Your task to perform on an android device: What is the news today? Image 0: 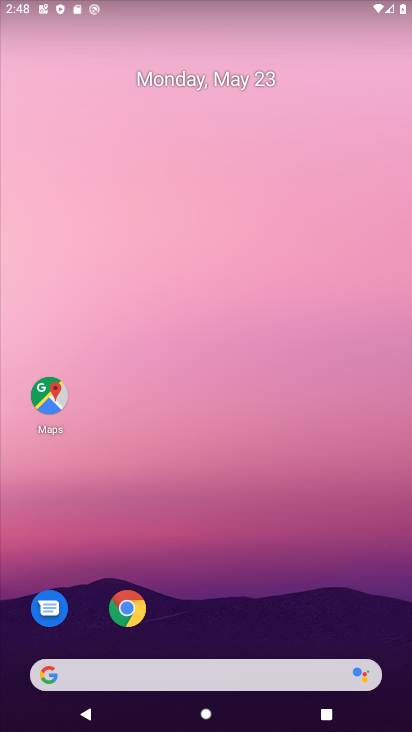
Step 0: drag from (279, 610) to (252, 92)
Your task to perform on an android device: What is the news today? Image 1: 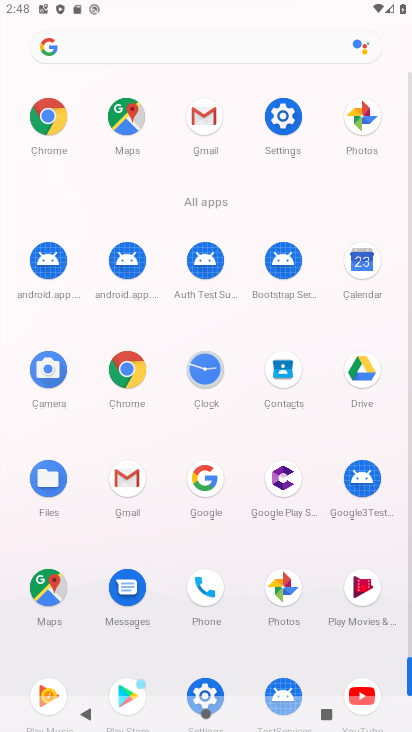
Step 1: click (202, 477)
Your task to perform on an android device: What is the news today? Image 2: 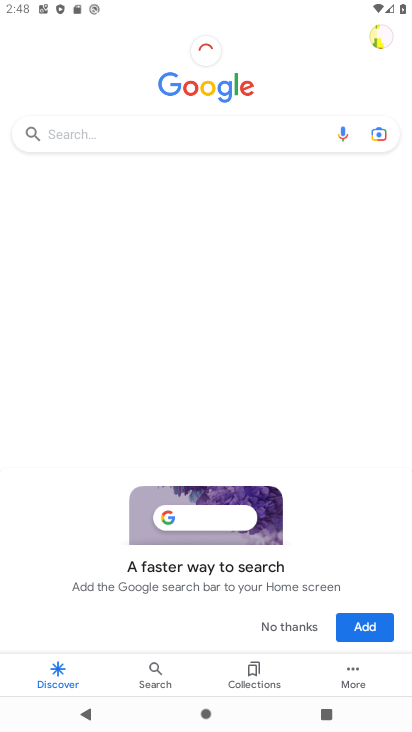
Step 2: click (218, 134)
Your task to perform on an android device: What is the news today? Image 3: 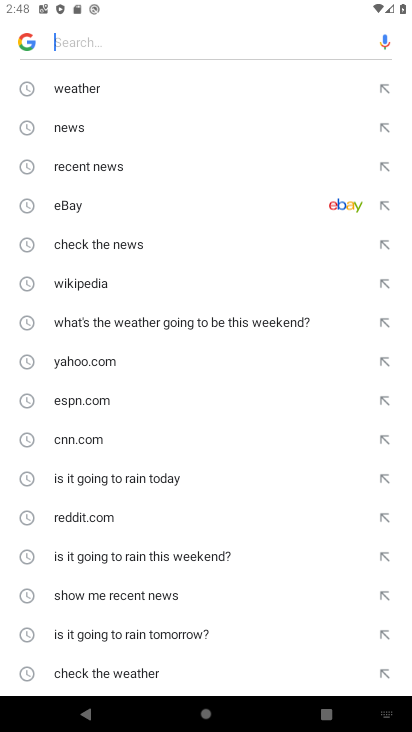
Step 3: type "news today"
Your task to perform on an android device: What is the news today? Image 4: 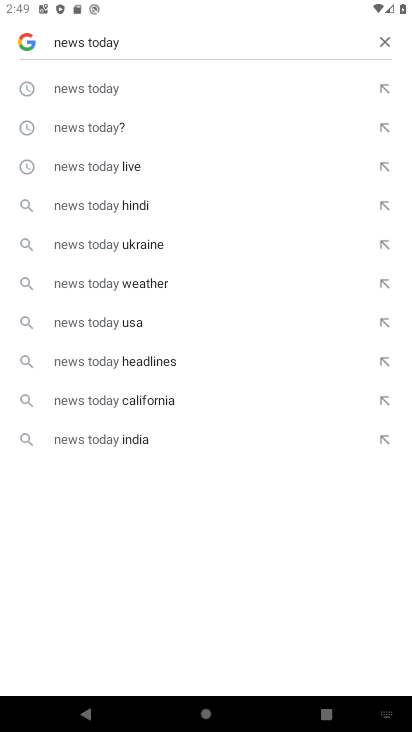
Step 4: click (98, 97)
Your task to perform on an android device: What is the news today? Image 5: 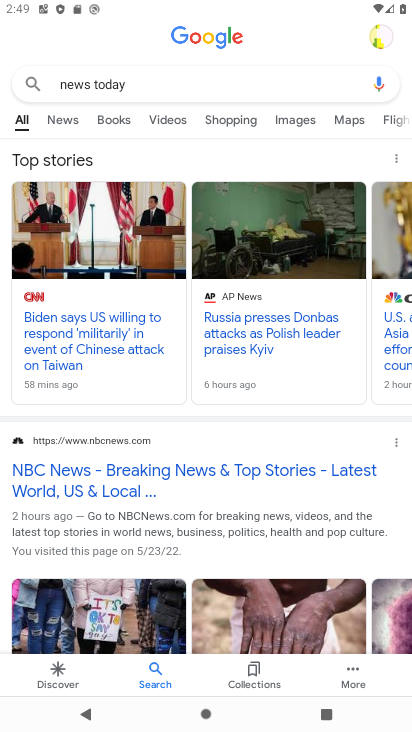
Step 5: task complete